Your task to perform on an android device: Add "usb-c" to the cart on costco.com, then select checkout. Image 0: 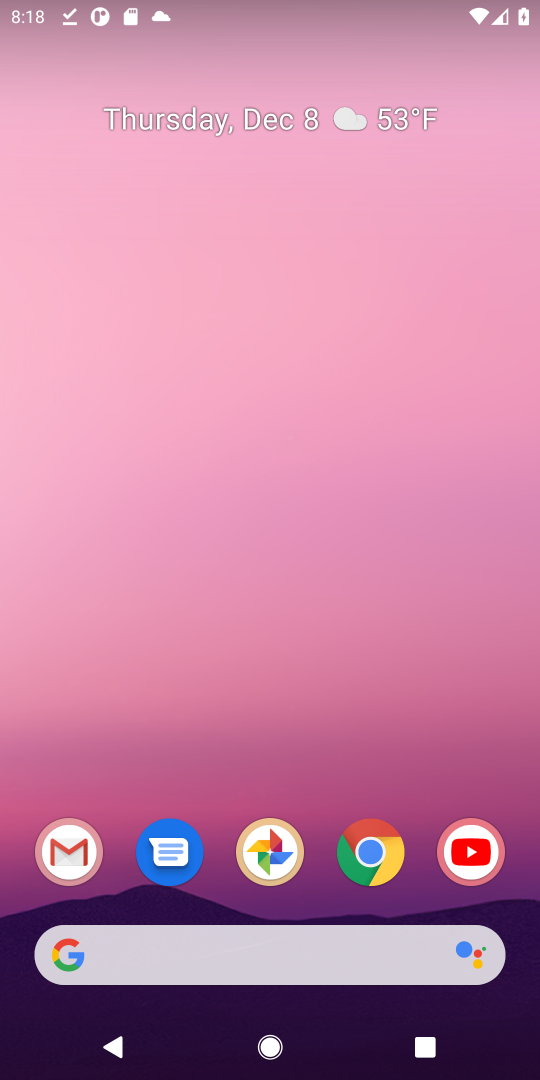
Step 0: click (327, 953)
Your task to perform on an android device: Add "usb-c" to the cart on costco.com, then select checkout. Image 1: 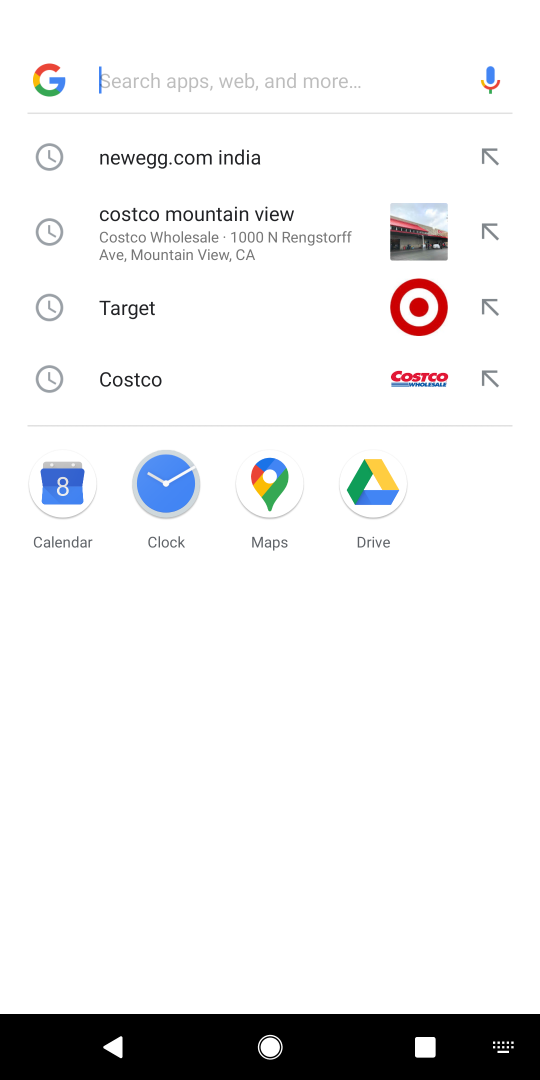
Step 1: type "costco.com"
Your task to perform on an android device: Add "usb-c" to the cart on costco.com, then select checkout. Image 2: 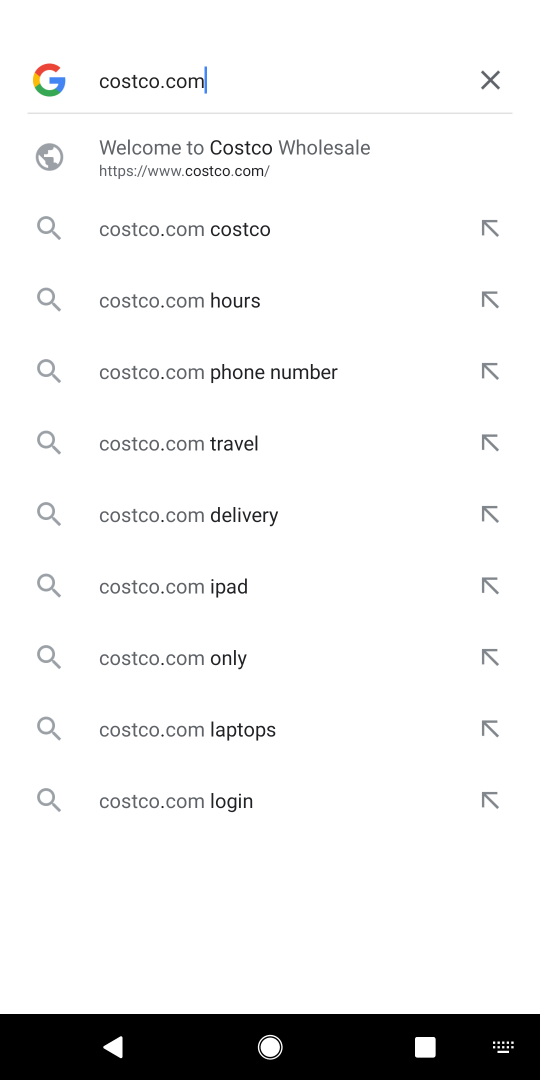
Step 2: click (193, 176)
Your task to perform on an android device: Add "usb-c" to the cart on costco.com, then select checkout. Image 3: 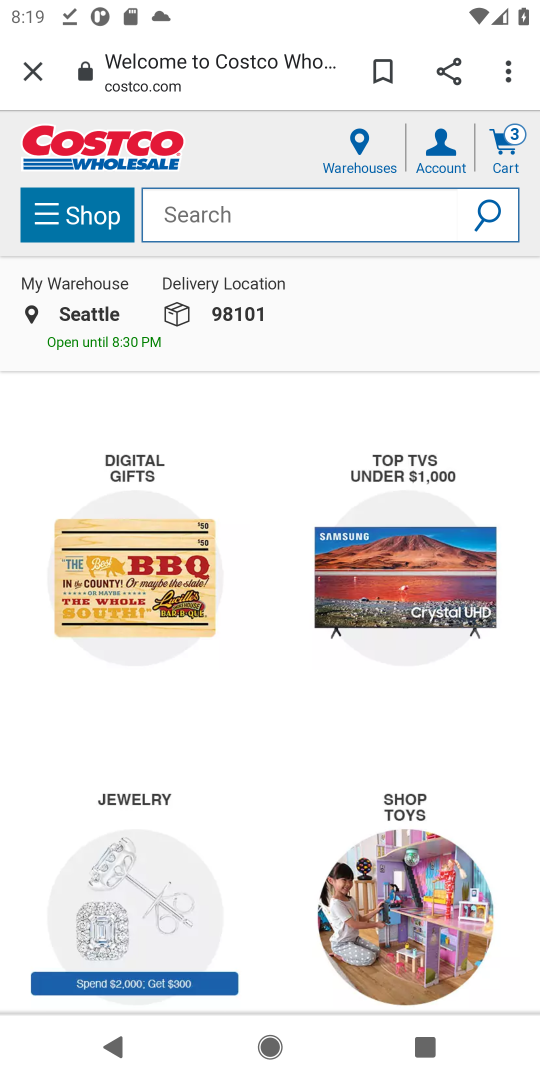
Step 3: click (203, 207)
Your task to perform on an android device: Add "usb-c" to the cart on costco.com, then select checkout. Image 4: 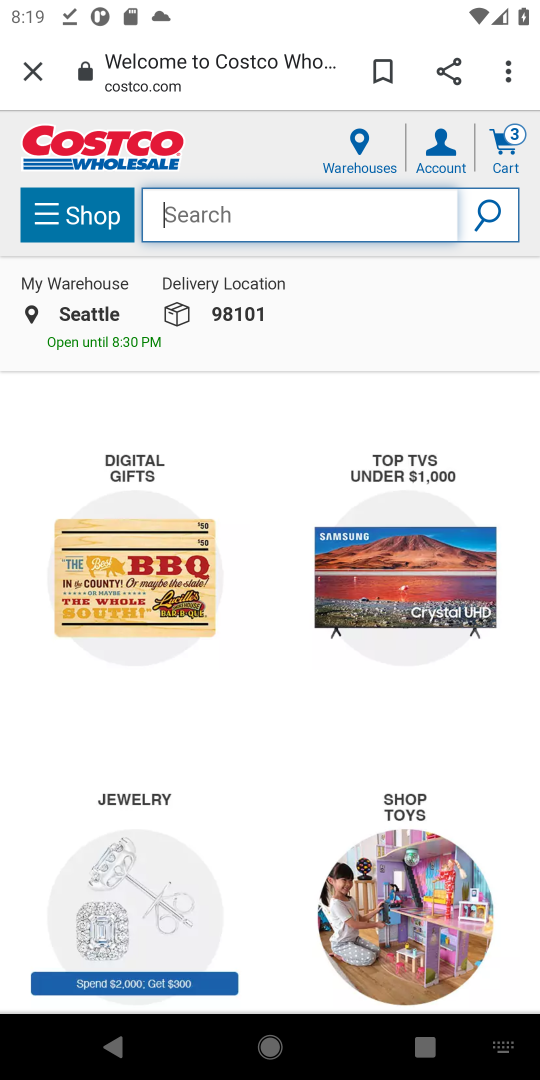
Step 4: type "usb-c"
Your task to perform on an android device: Add "usb-c" to the cart on costco.com, then select checkout. Image 5: 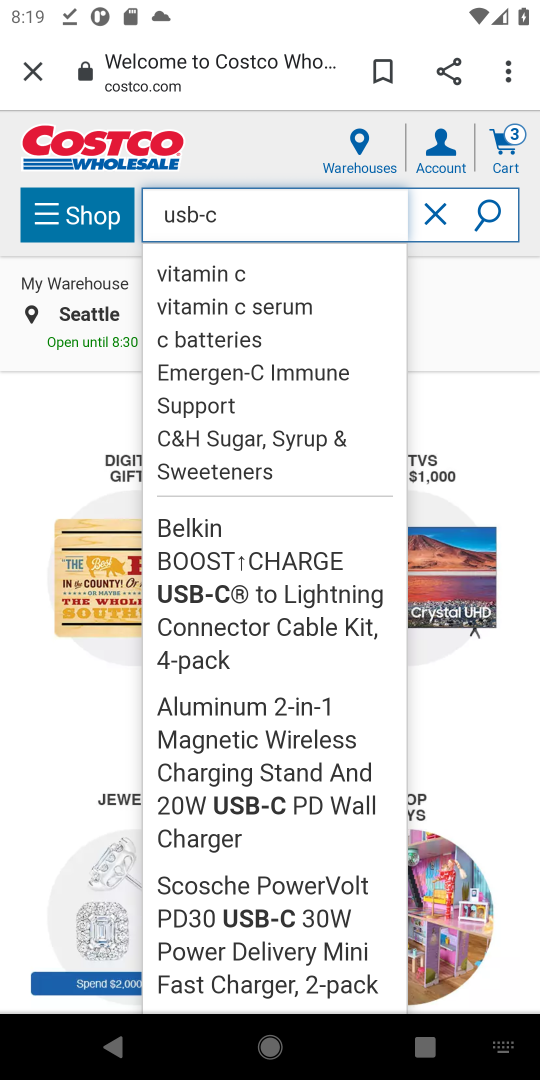
Step 5: click (492, 226)
Your task to perform on an android device: Add "usb-c" to the cart on costco.com, then select checkout. Image 6: 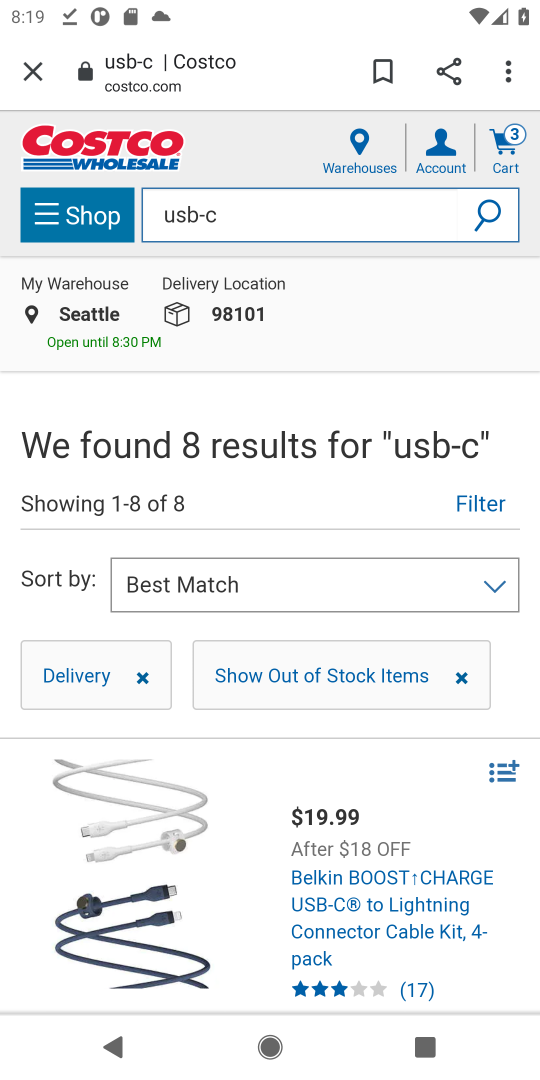
Step 6: click (344, 886)
Your task to perform on an android device: Add "usb-c" to the cart on costco.com, then select checkout. Image 7: 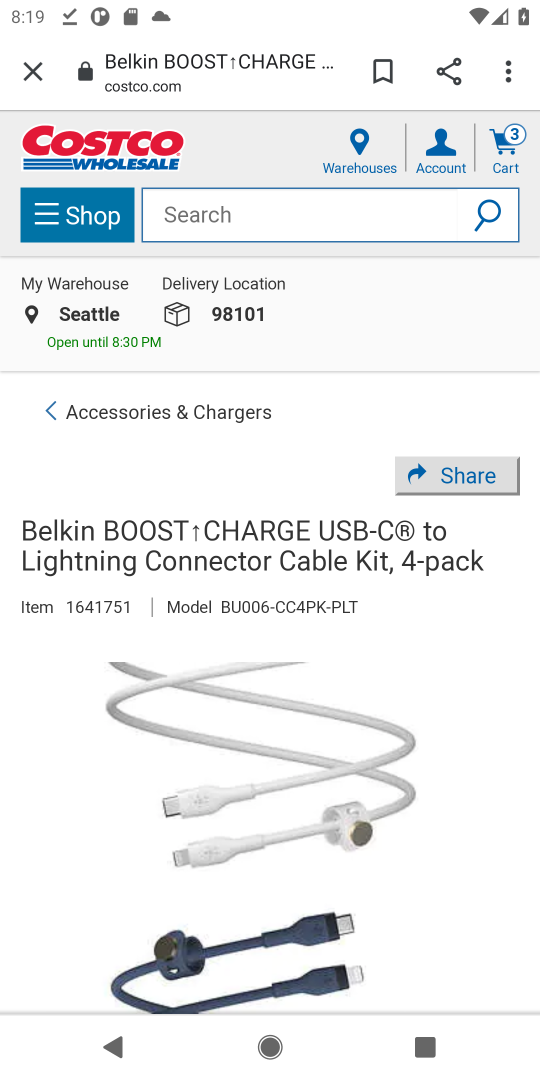
Step 7: drag from (447, 887) to (452, 671)
Your task to perform on an android device: Add "usb-c" to the cart on costco.com, then select checkout. Image 8: 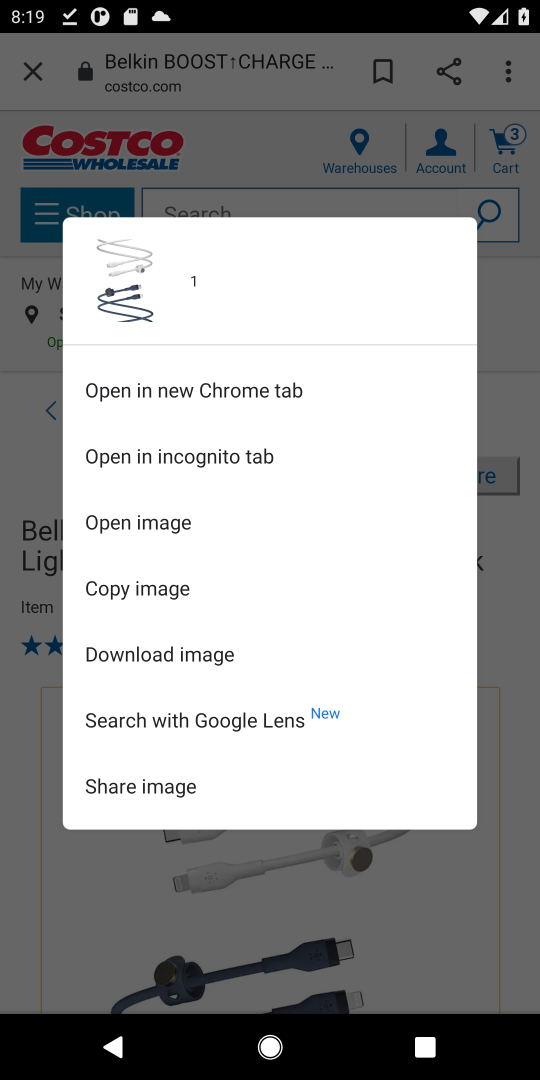
Step 8: click (518, 922)
Your task to perform on an android device: Add "usb-c" to the cart on costco.com, then select checkout. Image 9: 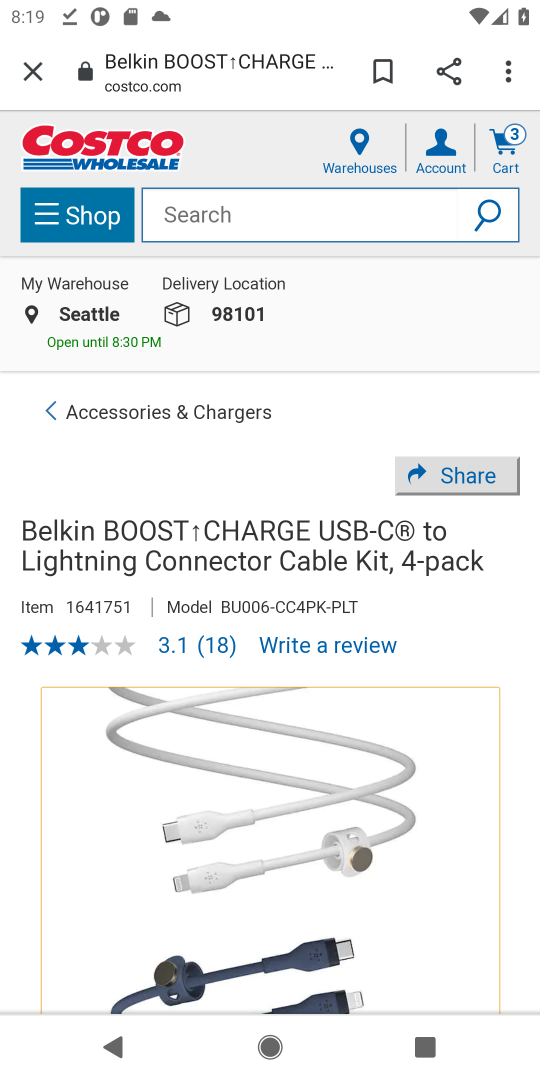
Step 9: drag from (518, 922) to (509, 284)
Your task to perform on an android device: Add "usb-c" to the cart on costco.com, then select checkout. Image 10: 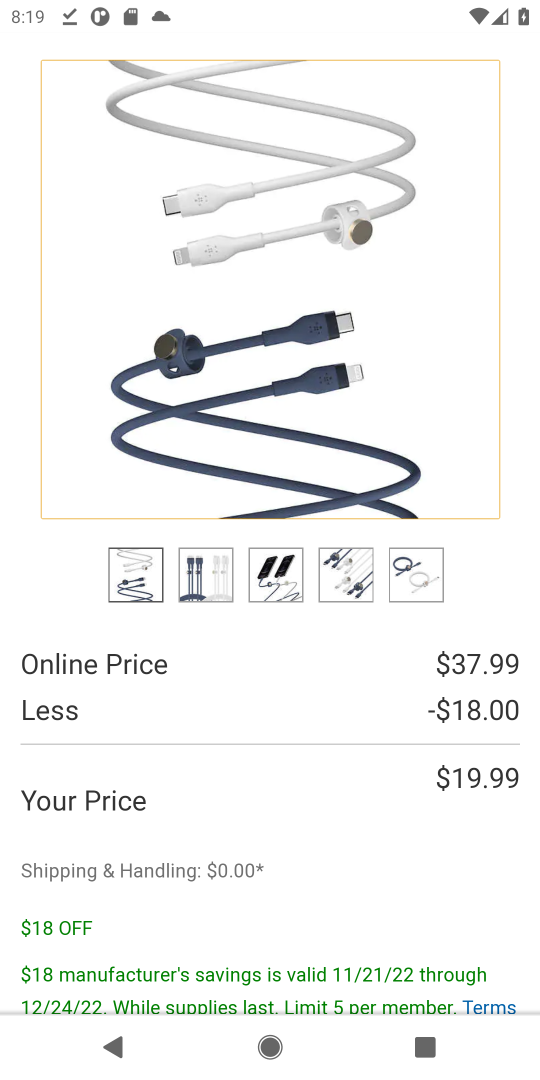
Step 10: drag from (320, 867) to (314, 466)
Your task to perform on an android device: Add "usb-c" to the cart on costco.com, then select checkout. Image 11: 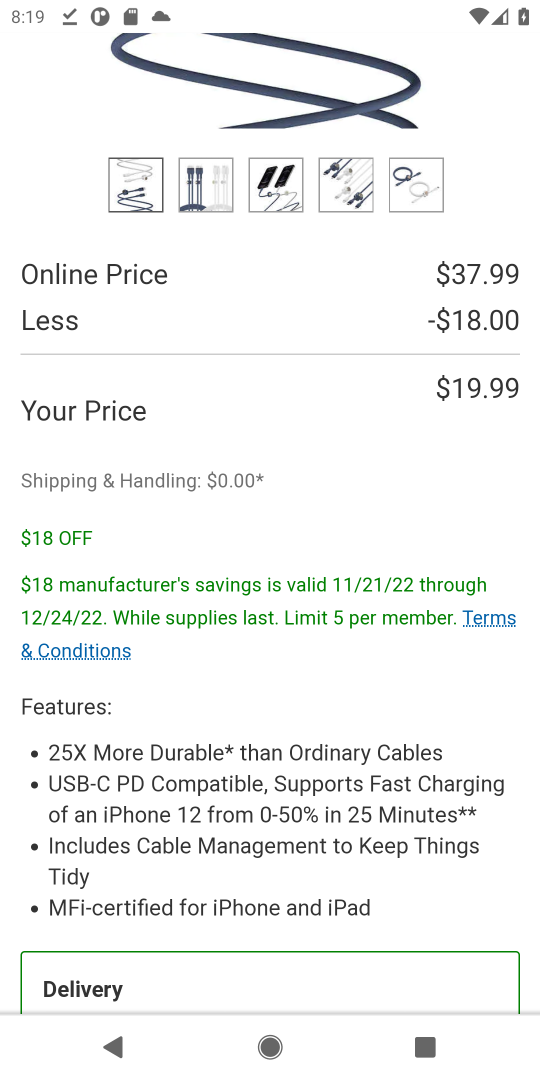
Step 11: drag from (300, 896) to (300, 658)
Your task to perform on an android device: Add "usb-c" to the cart on costco.com, then select checkout. Image 12: 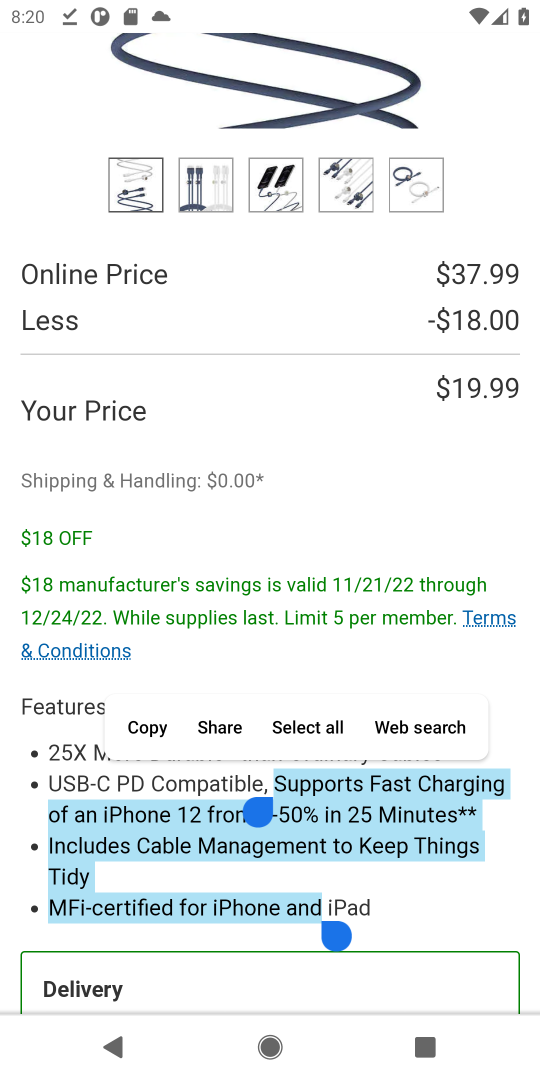
Step 12: click (386, 681)
Your task to perform on an android device: Add "usb-c" to the cart on costco.com, then select checkout. Image 13: 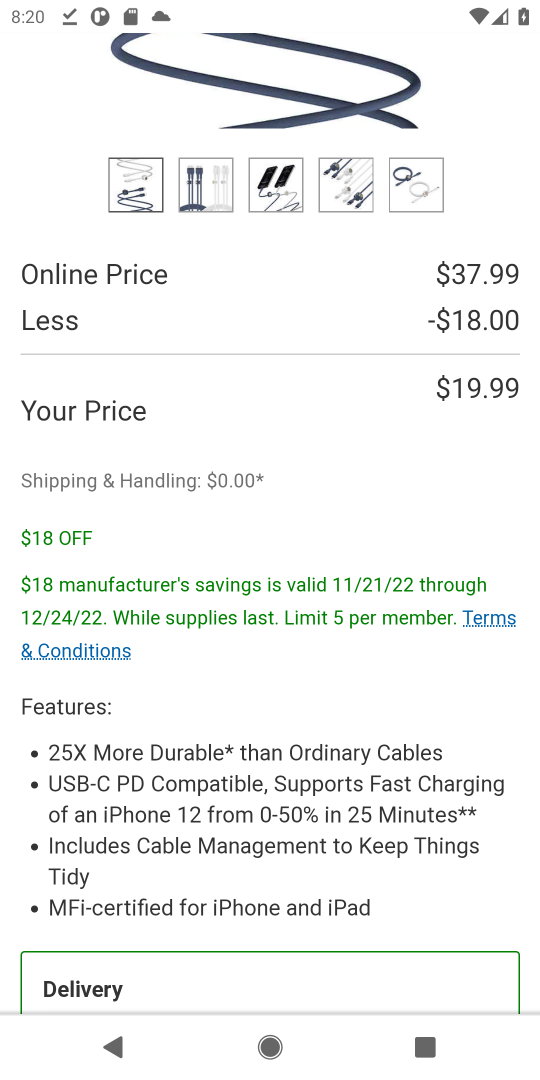
Step 13: task complete